Your task to perform on an android device: open app "NewsBreak: Local News & Alerts" (install if not already installed) Image 0: 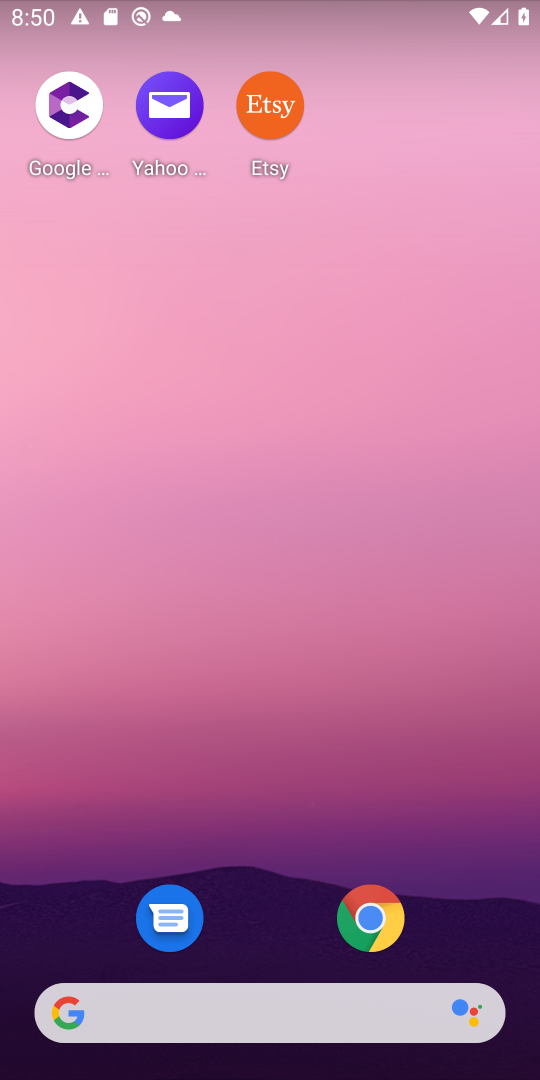
Step 0: drag from (299, 1061) to (243, 271)
Your task to perform on an android device: open app "NewsBreak: Local News & Alerts" (install if not already installed) Image 1: 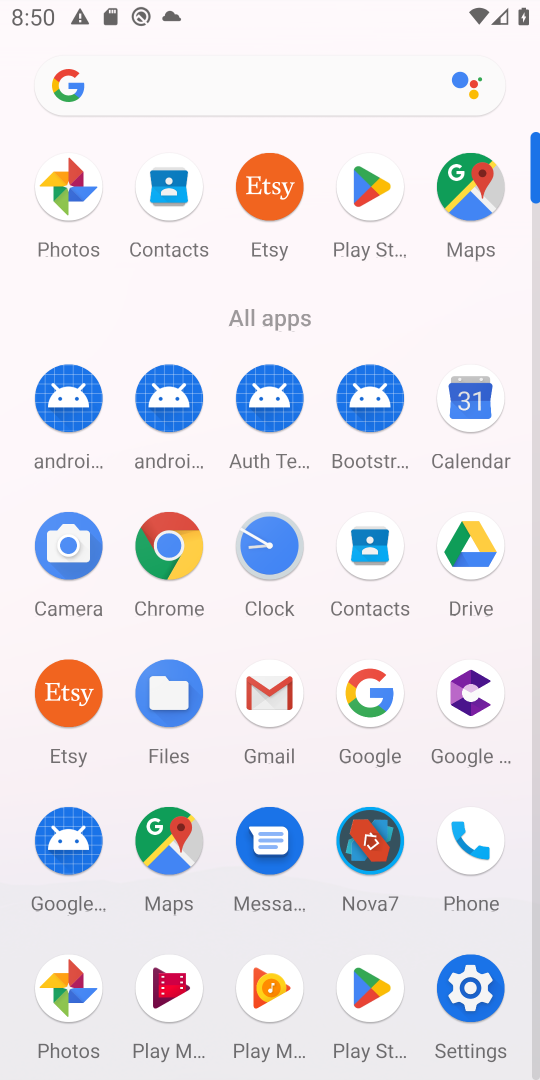
Step 1: click (367, 194)
Your task to perform on an android device: open app "NewsBreak: Local News & Alerts" (install if not already installed) Image 2: 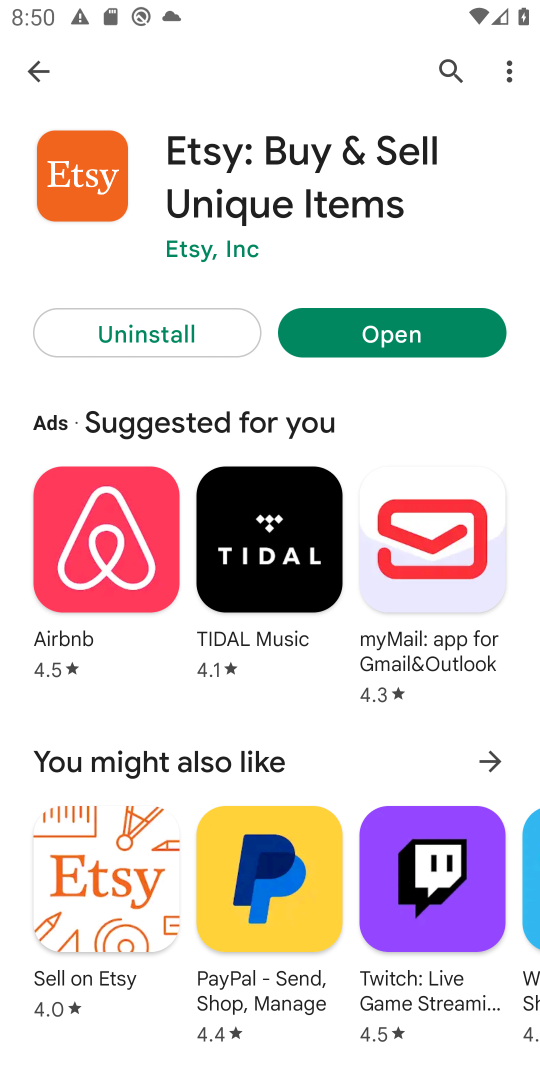
Step 2: click (459, 73)
Your task to perform on an android device: open app "NewsBreak: Local News & Alerts" (install if not already installed) Image 3: 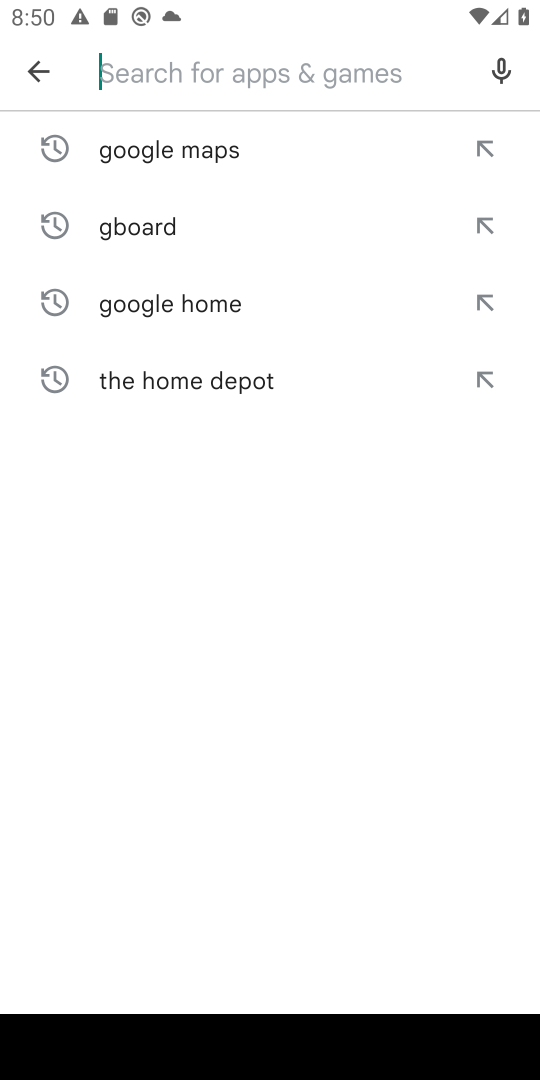
Step 3: type "NewsBreak: Local News & Alerts"
Your task to perform on an android device: open app "NewsBreak: Local News & Alerts" (install if not already installed) Image 4: 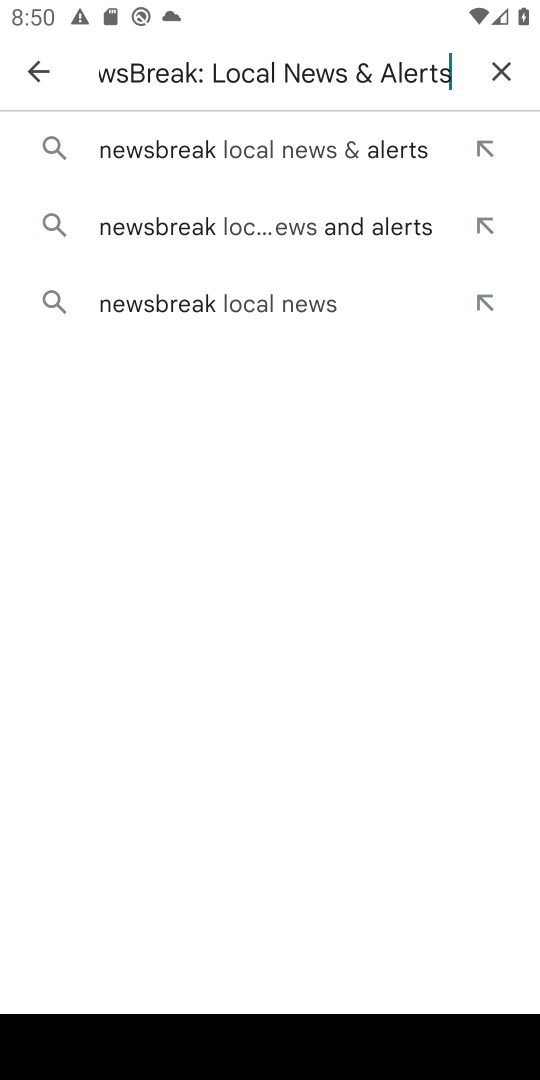
Step 4: type ""
Your task to perform on an android device: open app "NewsBreak: Local News & Alerts" (install if not already installed) Image 5: 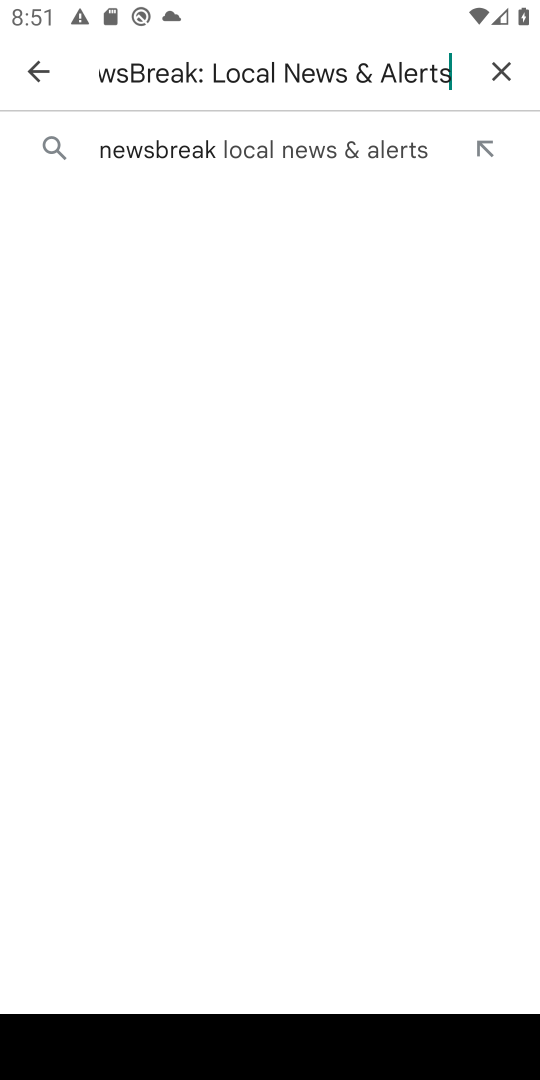
Step 5: task complete